Your task to perform on an android device: Open my contact list Image 0: 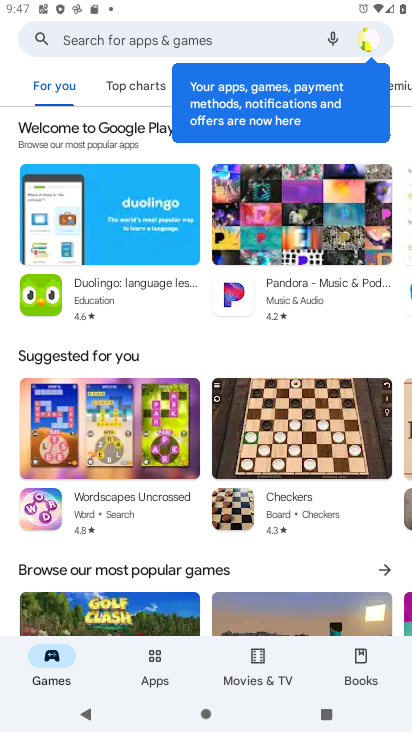
Step 0: press back button
Your task to perform on an android device: Open my contact list Image 1: 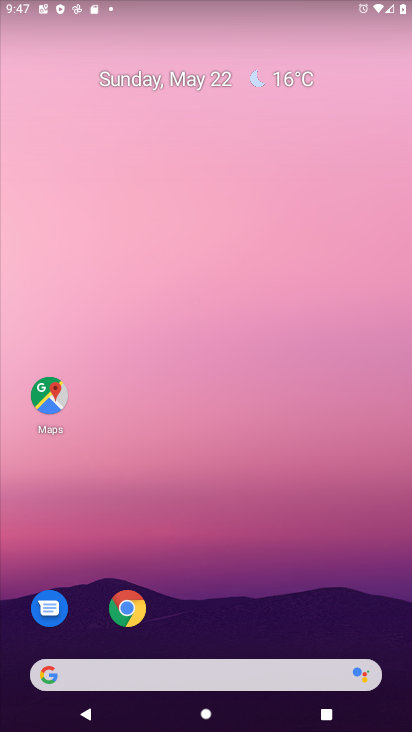
Step 1: drag from (257, 571) to (214, 52)
Your task to perform on an android device: Open my contact list Image 2: 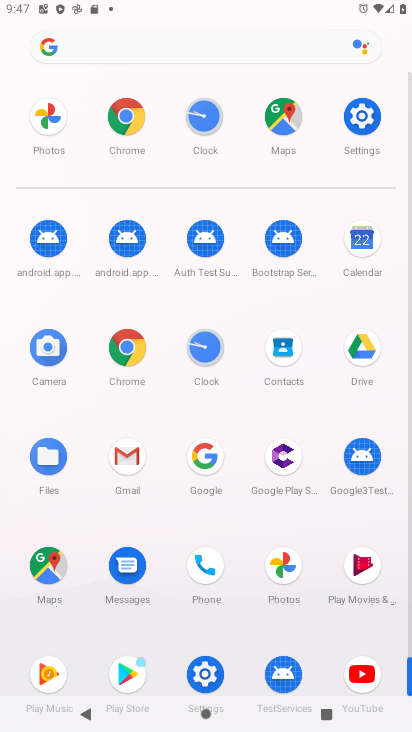
Step 2: drag from (14, 581) to (27, 242)
Your task to perform on an android device: Open my contact list Image 3: 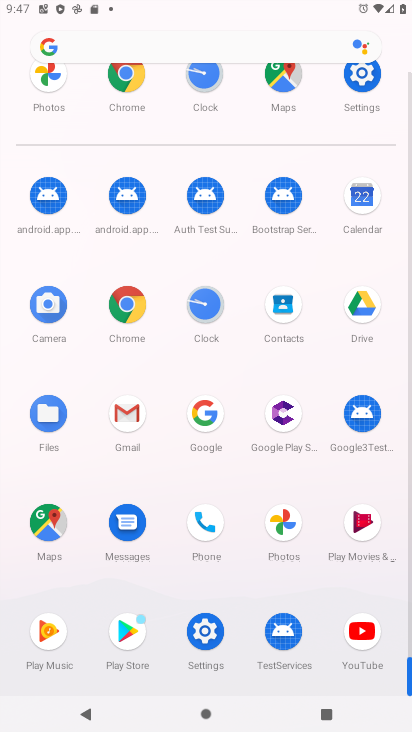
Step 3: click (287, 302)
Your task to perform on an android device: Open my contact list Image 4: 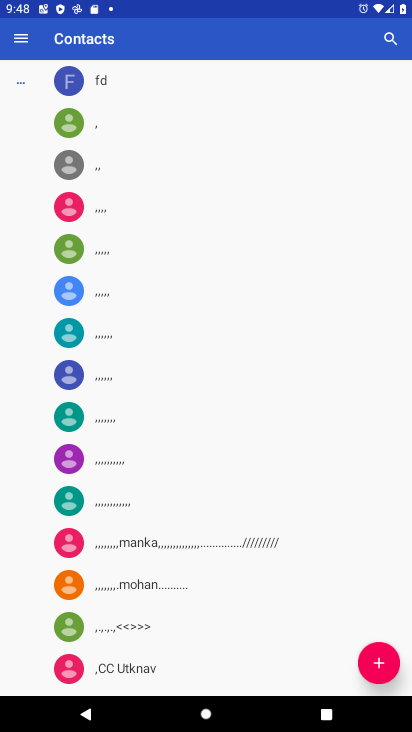
Step 4: task complete